Your task to perform on an android device: turn off notifications in google photos Image 0: 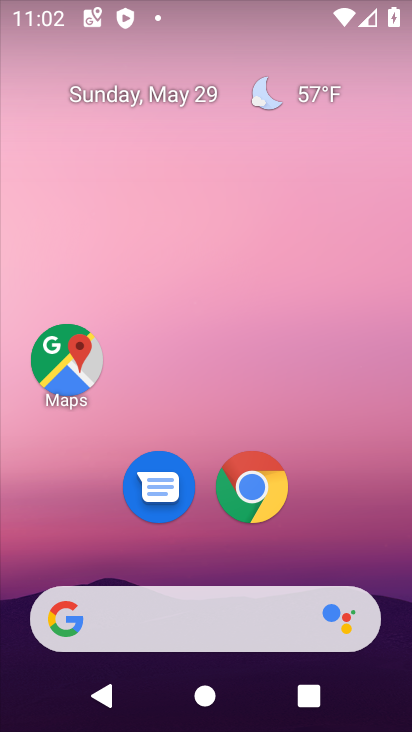
Step 0: drag from (53, 553) to (270, 102)
Your task to perform on an android device: turn off notifications in google photos Image 1: 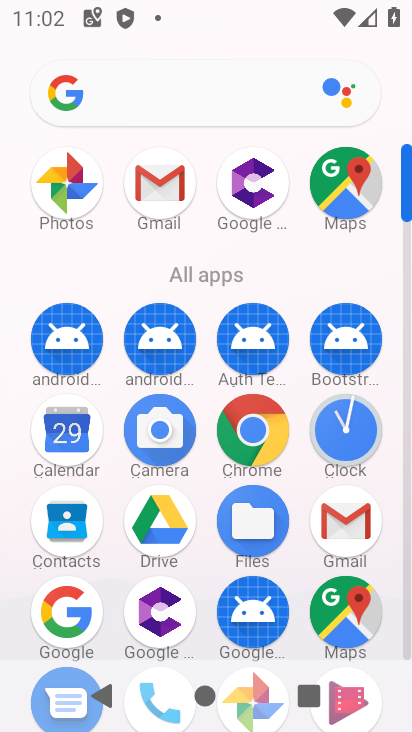
Step 1: drag from (127, 592) to (216, 376)
Your task to perform on an android device: turn off notifications in google photos Image 2: 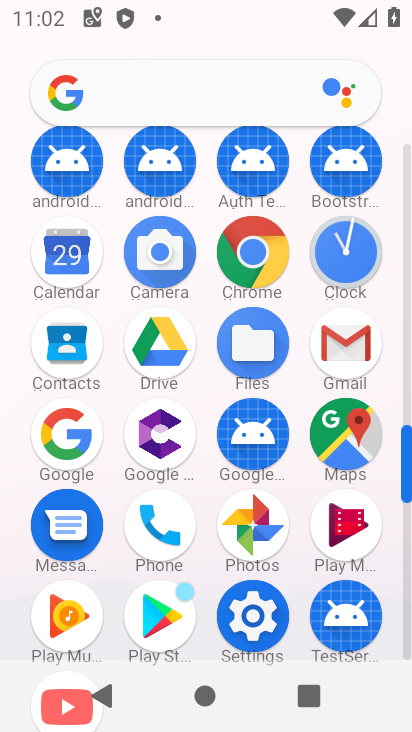
Step 2: click (259, 531)
Your task to perform on an android device: turn off notifications in google photos Image 3: 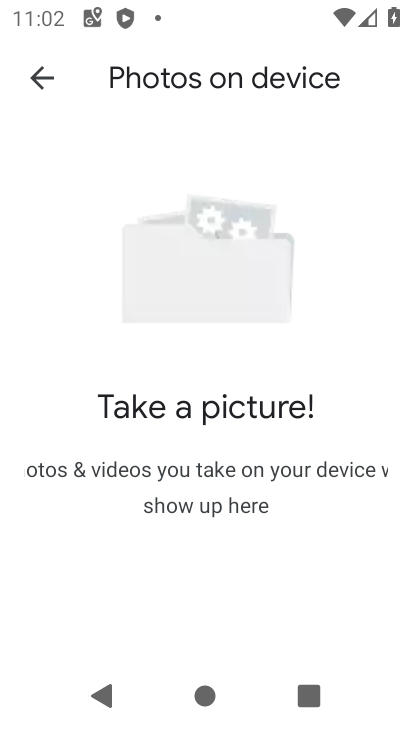
Step 3: click (53, 68)
Your task to perform on an android device: turn off notifications in google photos Image 4: 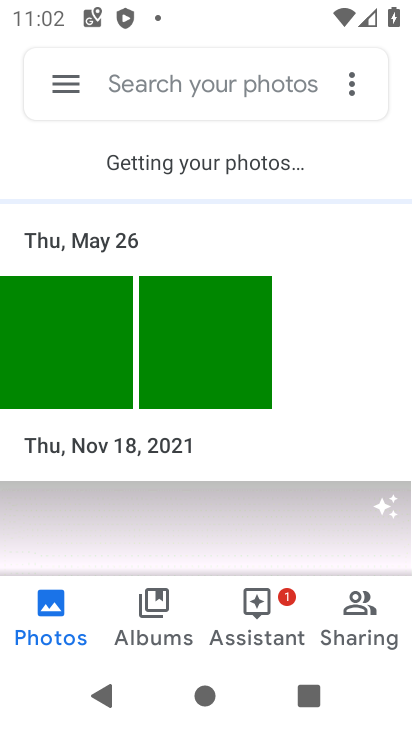
Step 4: click (57, 71)
Your task to perform on an android device: turn off notifications in google photos Image 5: 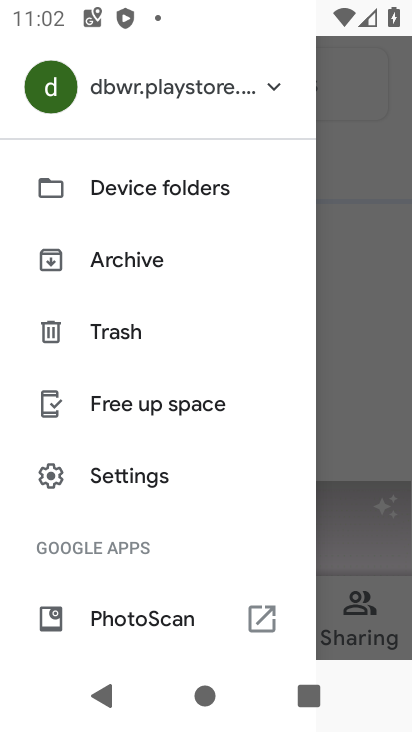
Step 5: drag from (154, 555) to (217, 225)
Your task to perform on an android device: turn off notifications in google photos Image 6: 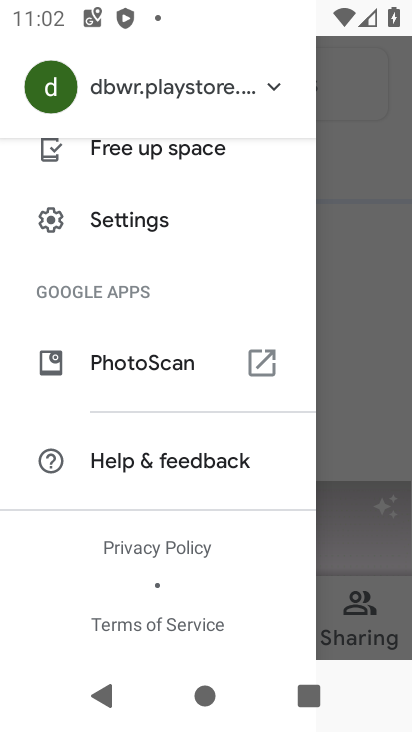
Step 6: click (151, 231)
Your task to perform on an android device: turn off notifications in google photos Image 7: 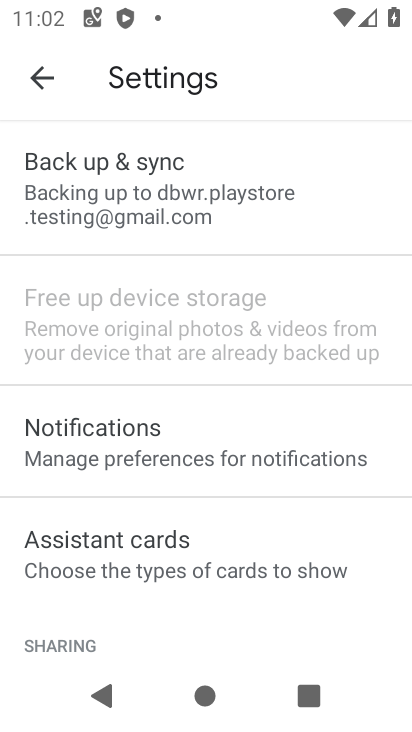
Step 7: click (141, 447)
Your task to perform on an android device: turn off notifications in google photos Image 8: 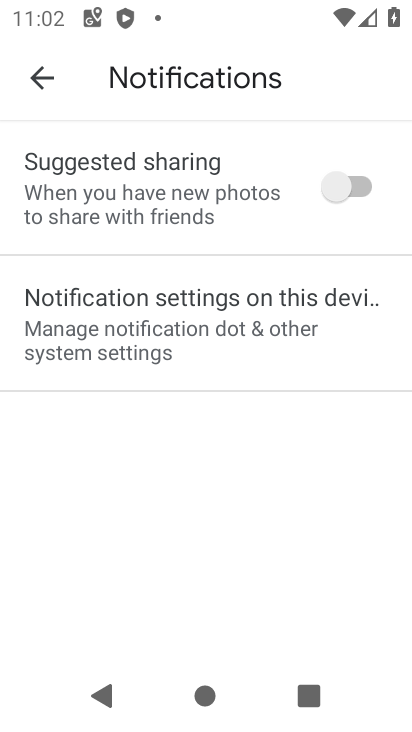
Step 8: click (192, 336)
Your task to perform on an android device: turn off notifications in google photos Image 9: 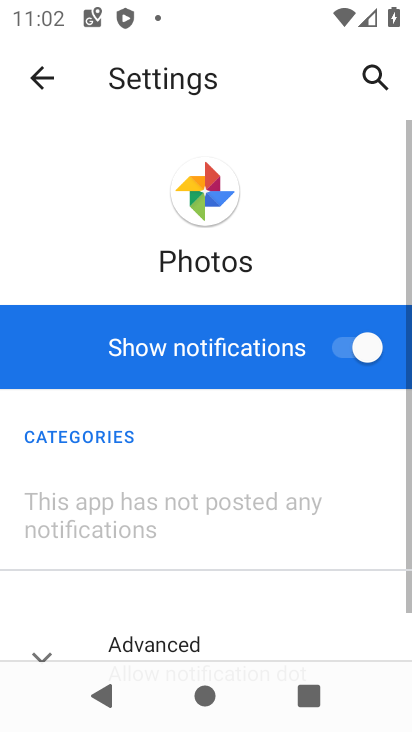
Step 9: click (339, 357)
Your task to perform on an android device: turn off notifications in google photos Image 10: 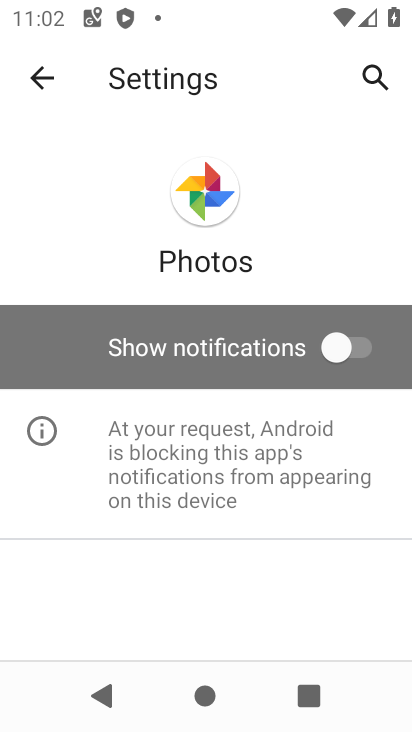
Step 10: task complete